Your task to perform on an android device: remove spam from my inbox in the gmail app Image 0: 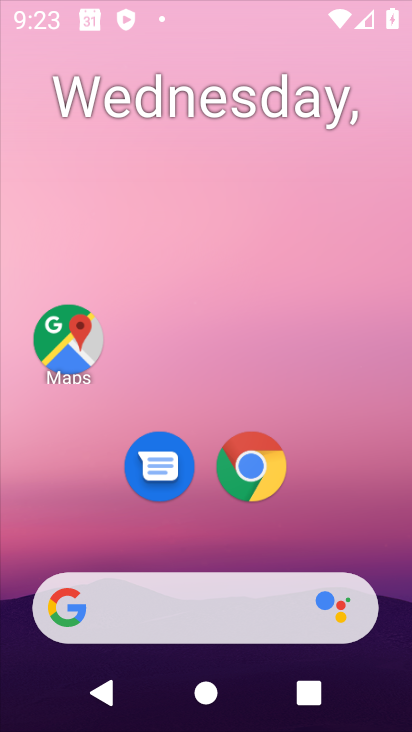
Step 0: drag from (316, 562) to (334, 276)
Your task to perform on an android device: remove spam from my inbox in the gmail app Image 1: 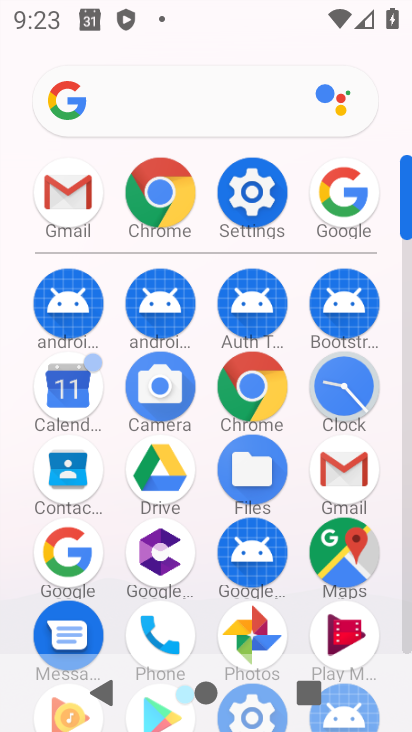
Step 1: click (55, 179)
Your task to perform on an android device: remove spam from my inbox in the gmail app Image 2: 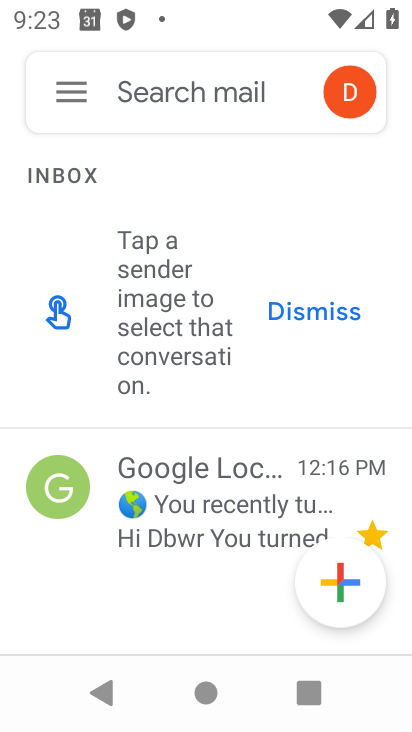
Step 2: click (63, 93)
Your task to perform on an android device: remove spam from my inbox in the gmail app Image 3: 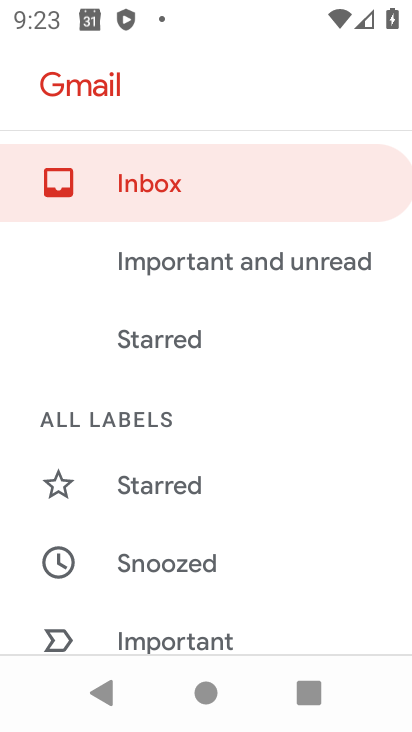
Step 3: drag from (274, 582) to (315, 270)
Your task to perform on an android device: remove spam from my inbox in the gmail app Image 4: 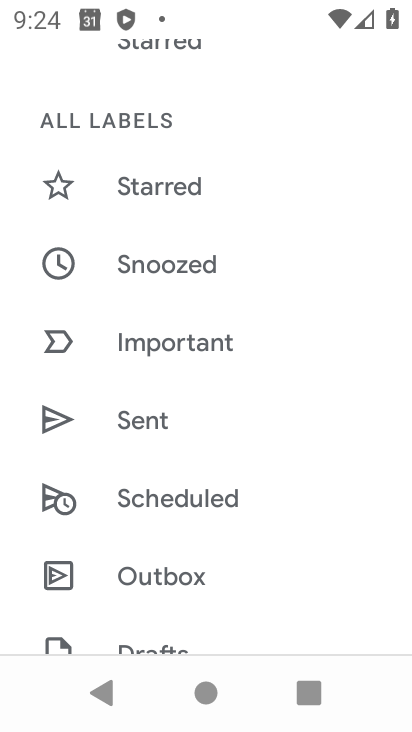
Step 4: drag from (213, 570) to (315, 288)
Your task to perform on an android device: remove spam from my inbox in the gmail app Image 5: 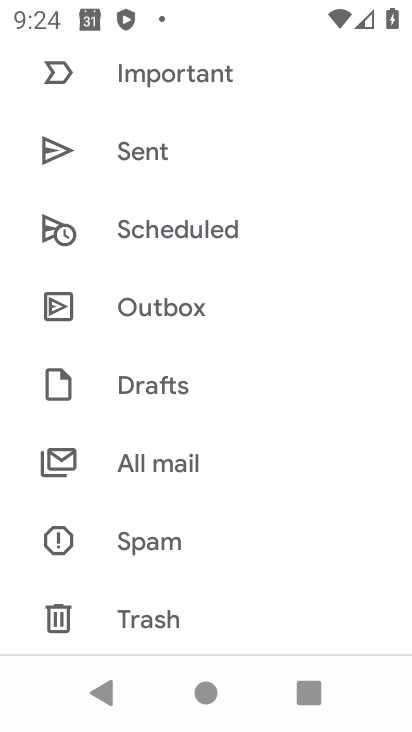
Step 5: click (152, 539)
Your task to perform on an android device: remove spam from my inbox in the gmail app Image 6: 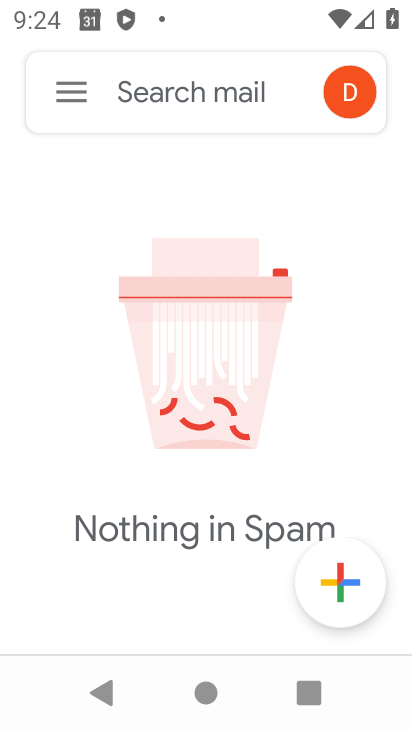
Step 6: task complete